Your task to perform on an android device: Is it going to rain today? Image 0: 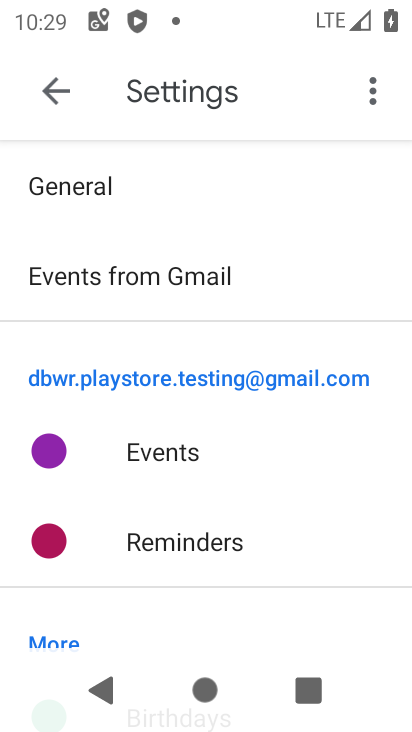
Step 0: press home button
Your task to perform on an android device: Is it going to rain today? Image 1: 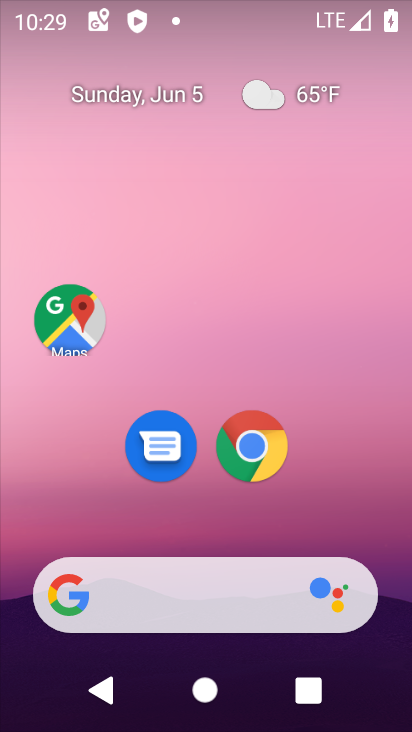
Step 1: drag from (247, 478) to (231, 47)
Your task to perform on an android device: Is it going to rain today? Image 2: 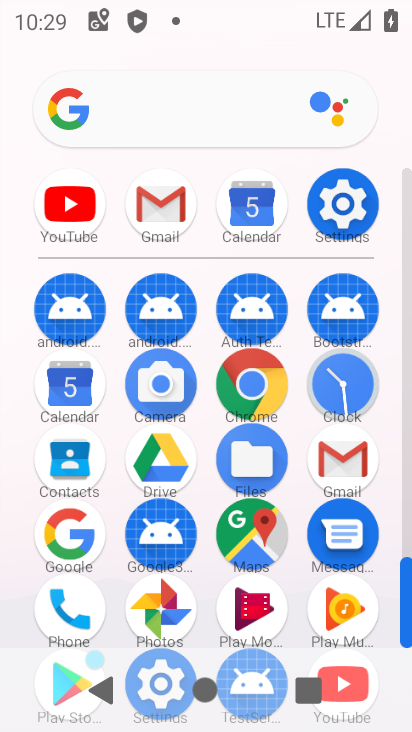
Step 2: drag from (294, 526) to (277, 369)
Your task to perform on an android device: Is it going to rain today? Image 3: 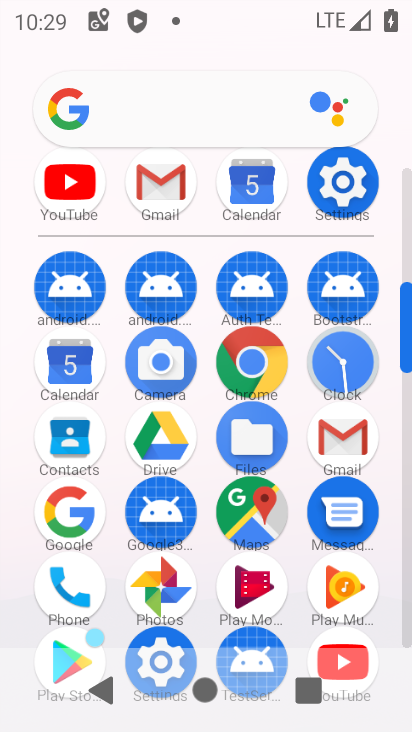
Step 3: click (288, 188)
Your task to perform on an android device: Is it going to rain today? Image 4: 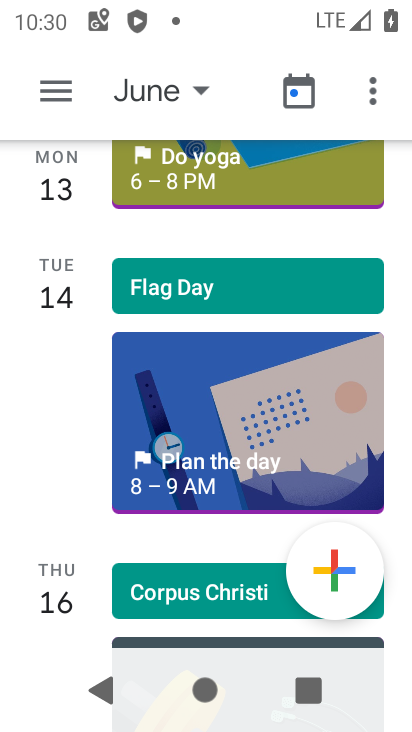
Step 4: press home button
Your task to perform on an android device: Is it going to rain today? Image 5: 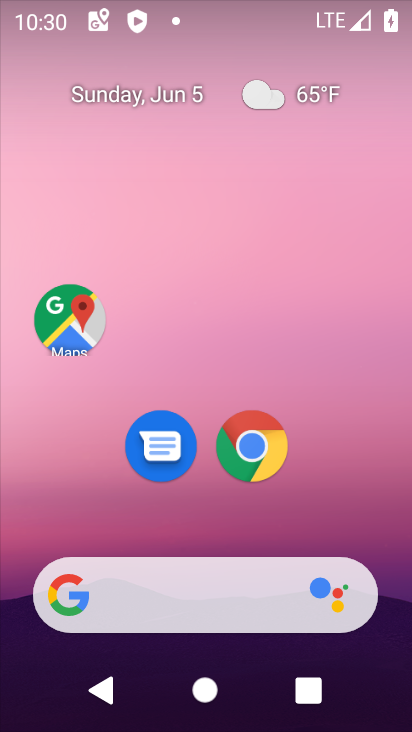
Step 5: drag from (273, 571) to (272, 196)
Your task to perform on an android device: Is it going to rain today? Image 6: 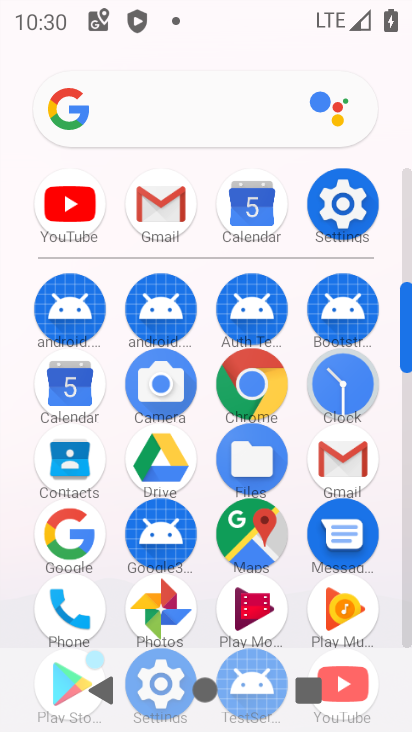
Step 6: click (75, 551)
Your task to perform on an android device: Is it going to rain today? Image 7: 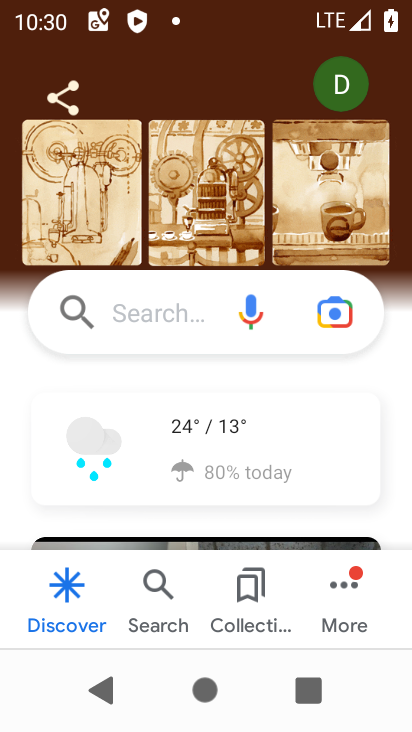
Step 7: drag from (208, 528) to (206, 292)
Your task to perform on an android device: Is it going to rain today? Image 8: 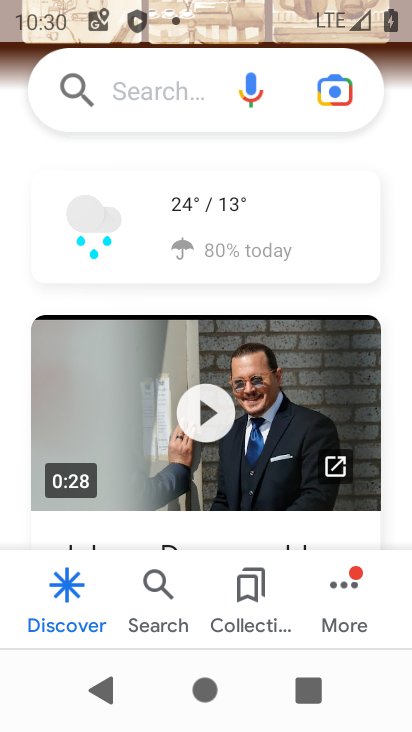
Step 8: click (160, 98)
Your task to perform on an android device: Is it going to rain today? Image 9: 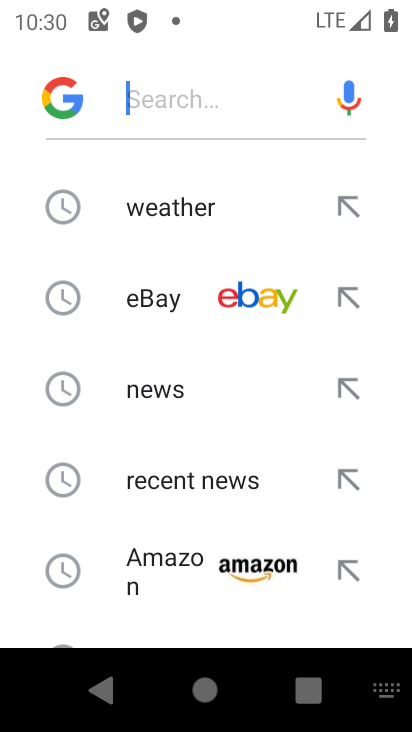
Step 9: click (188, 218)
Your task to perform on an android device: Is it going to rain today? Image 10: 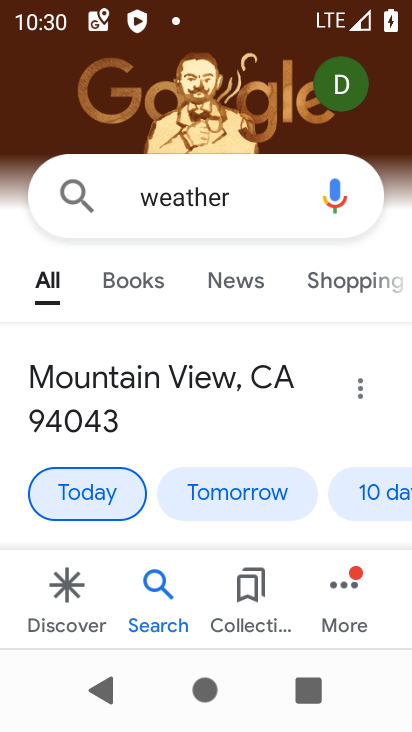
Step 10: task complete